Your task to perform on an android device: Open sound settings Image 0: 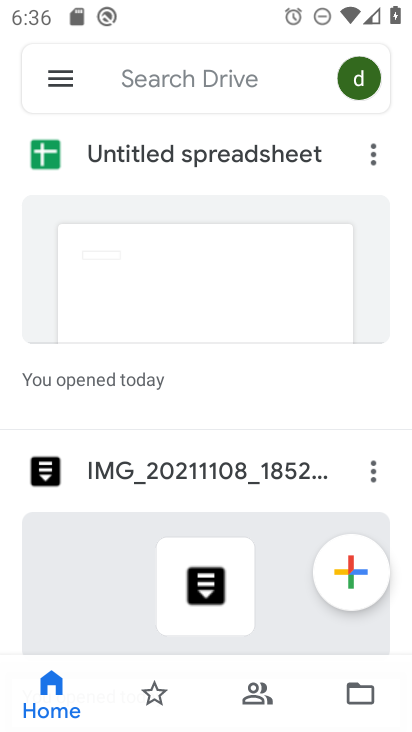
Step 0: press home button
Your task to perform on an android device: Open sound settings Image 1: 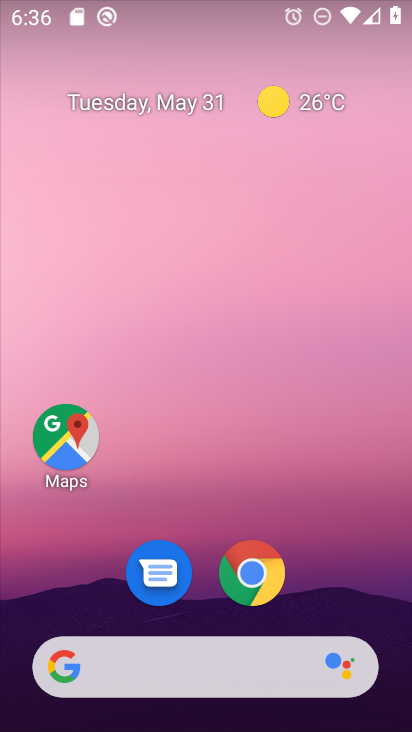
Step 1: drag from (378, 670) to (324, 59)
Your task to perform on an android device: Open sound settings Image 2: 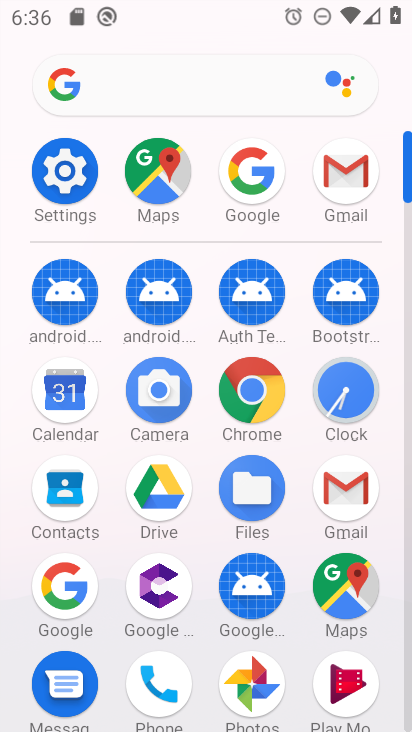
Step 2: click (81, 186)
Your task to perform on an android device: Open sound settings Image 3: 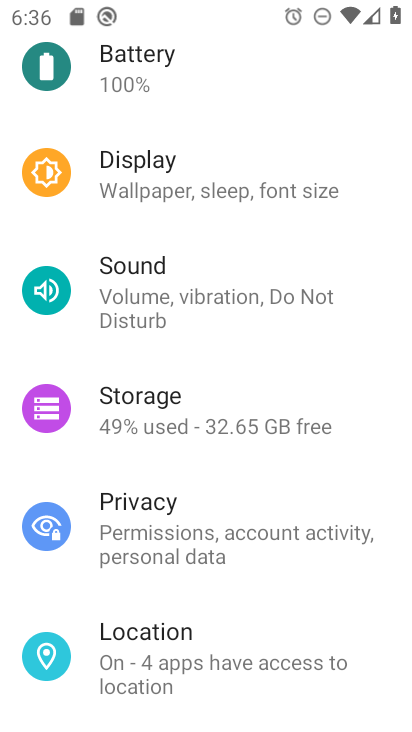
Step 3: click (158, 323)
Your task to perform on an android device: Open sound settings Image 4: 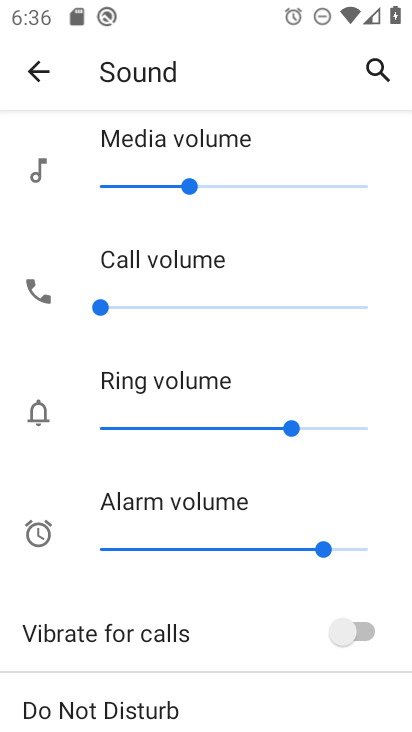
Step 4: task complete